Your task to perform on an android device: open the mobile data screen to see how much data has been used Image 0: 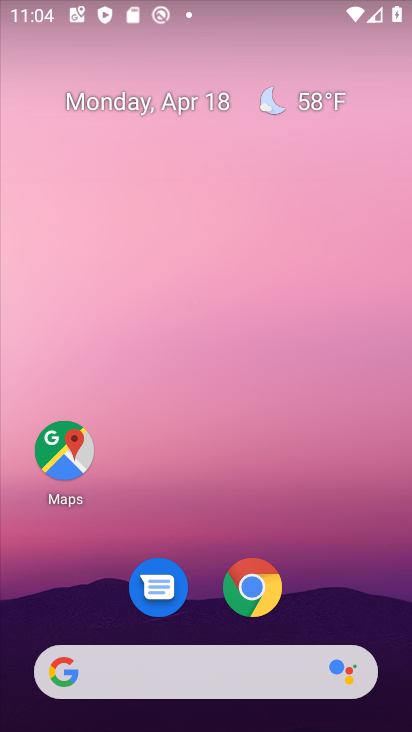
Step 0: drag from (138, 639) to (330, 133)
Your task to perform on an android device: open the mobile data screen to see how much data has been used Image 1: 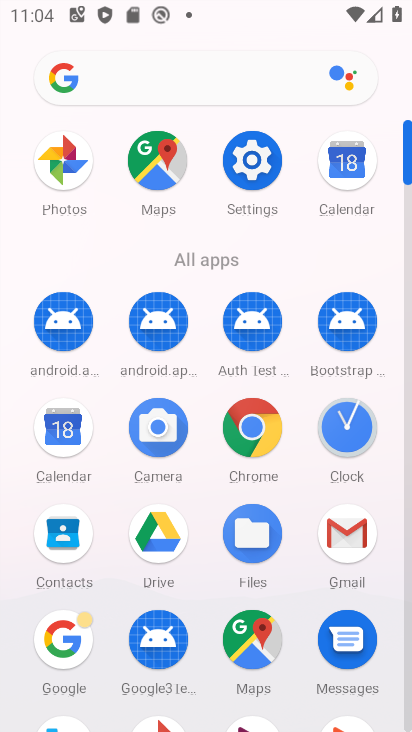
Step 1: drag from (177, 670) to (371, 177)
Your task to perform on an android device: open the mobile data screen to see how much data has been used Image 2: 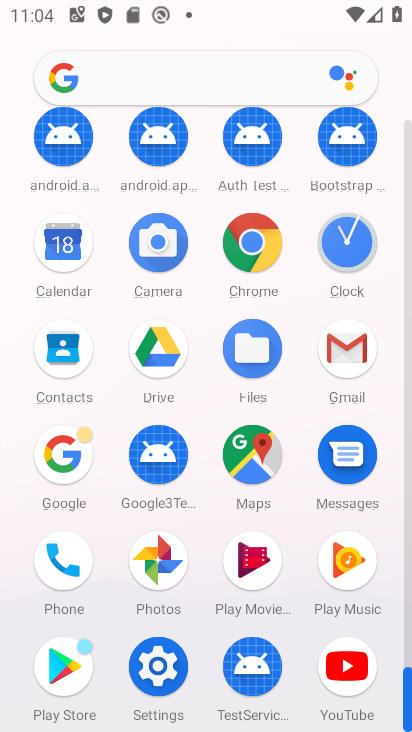
Step 2: click (158, 666)
Your task to perform on an android device: open the mobile data screen to see how much data has been used Image 3: 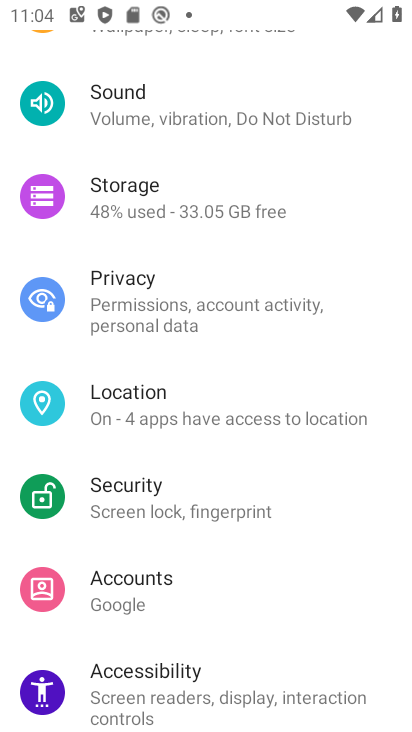
Step 3: drag from (258, 160) to (155, 507)
Your task to perform on an android device: open the mobile data screen to see how much data has been used Image 4: 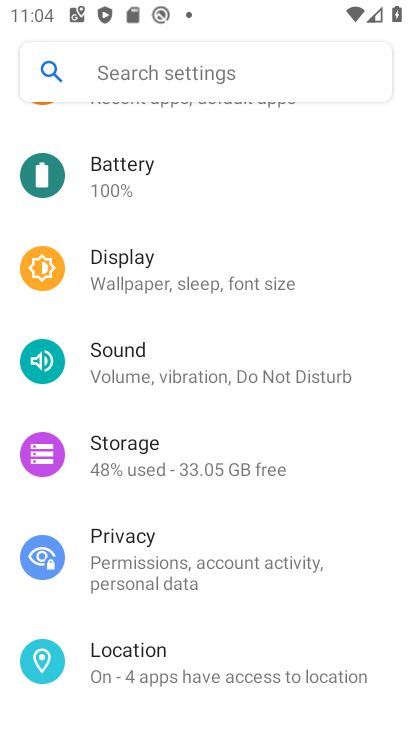
Step 4: drag from (242, 198) to (163, 427)
Your task to perform on an android device: open the mobile data screen to see how much data has been used Image 5: 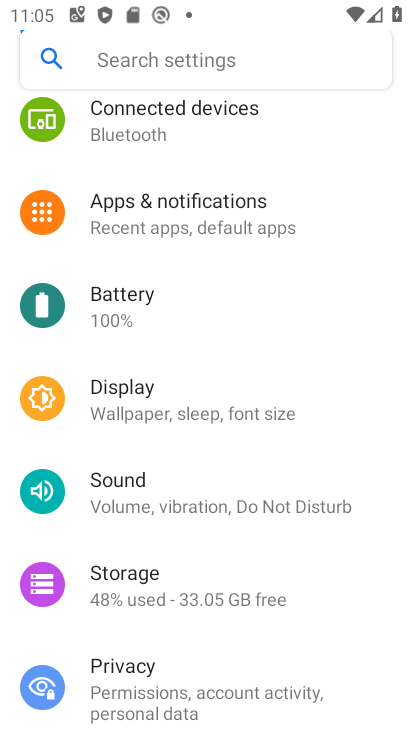
Step 5: drag from (227, 188) to (138, 470)
Your task to perform on an android device: open the mobile data screen to see how much data has been used Image 6: 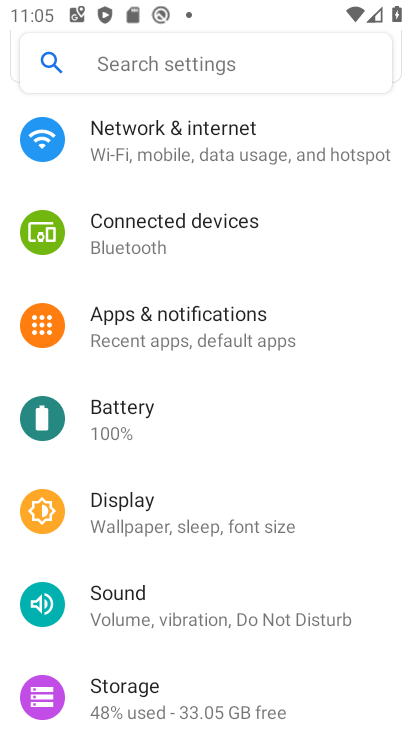
Step 6: click (255, 155)
Your task to perform on an android device: open the mobile data screen to see how much data has been used Image 7: 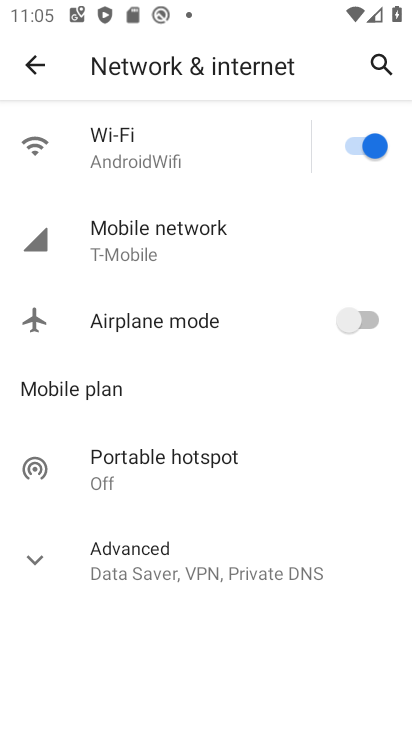
Step 7: click (217, 265)
Your task to perform on an android device: open the mobile data screen to see how much data has been used Image 8: 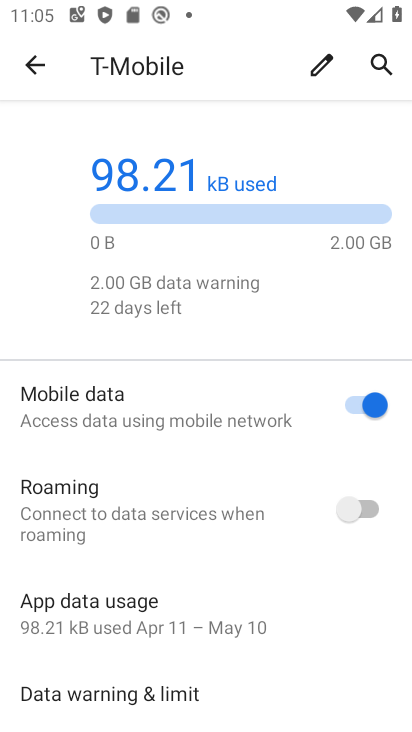
Step 8: drag from (196, 623) to (291, 303)
Your task to perform on an android device: open the mobile data screen to see how much data has been used Image 9: 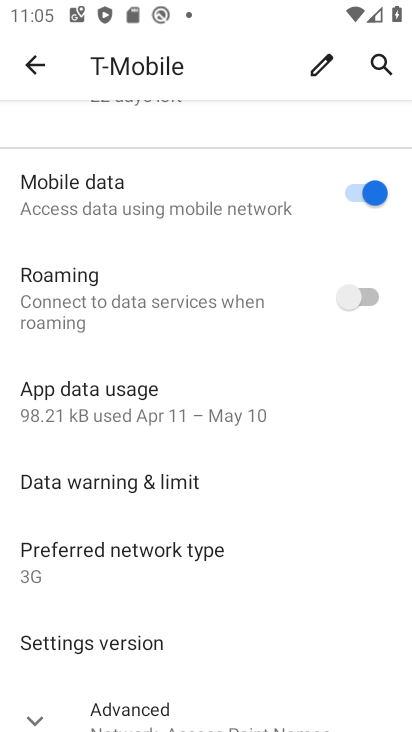
Step 9: drag from (207, 662) to (313, 288)
Your task to perform on an android device: open the mobile data screen to see how much data has been used Image 10: 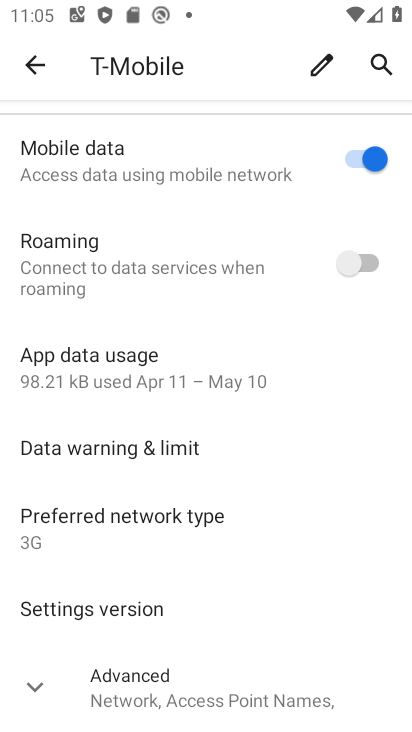
Step 10: click (200, 686)
Your task to perform on an android device: open the mobile data screen to see how much data has been used Image 11: 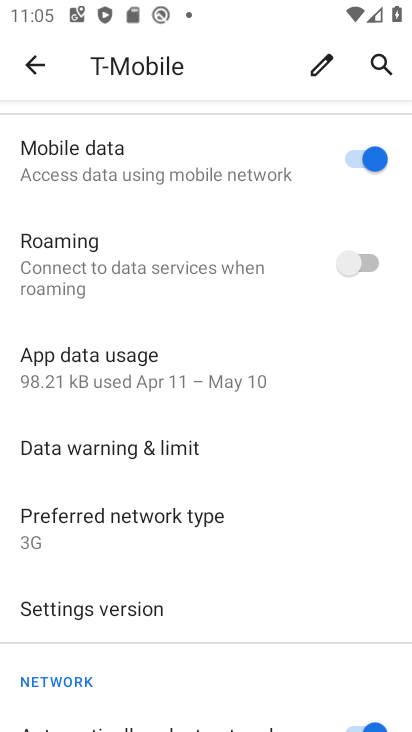
Step 11: click (166, 392)
Your task to perform on an android device: open the mobile data screen to see how much data has been used Image 12: 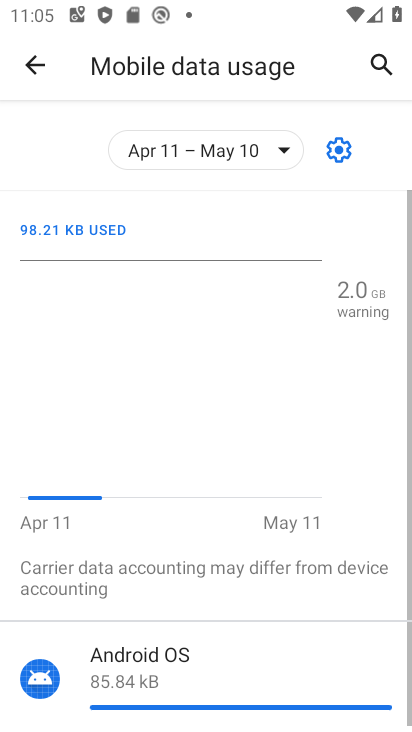
Step 12: task complete